Your task to perform on an android device: check out phone information Image 0: 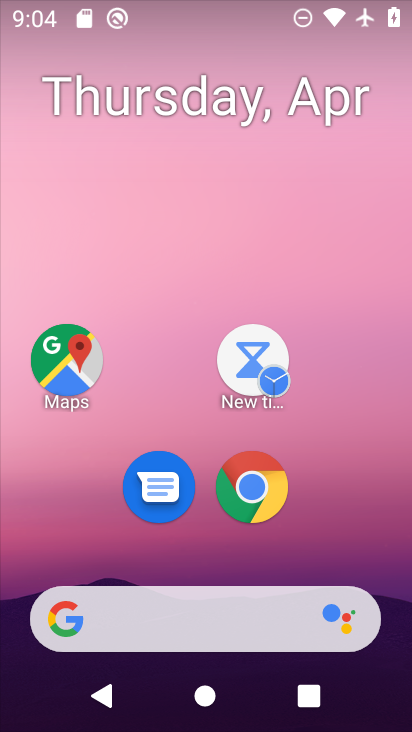
Step 0: drag from (345, 502) to (304, 89)
Your task to perform on an android device: check out phone information Image 1: 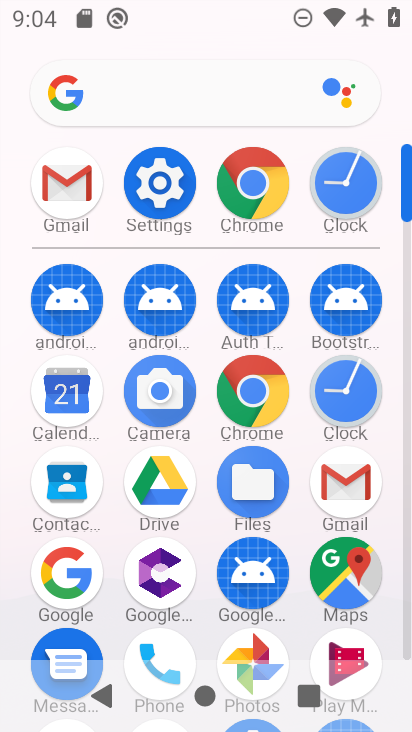
Step 1: drag from (193, 598) to (210, 343)
Your task to perform on an android device: check out phone information Image 2: 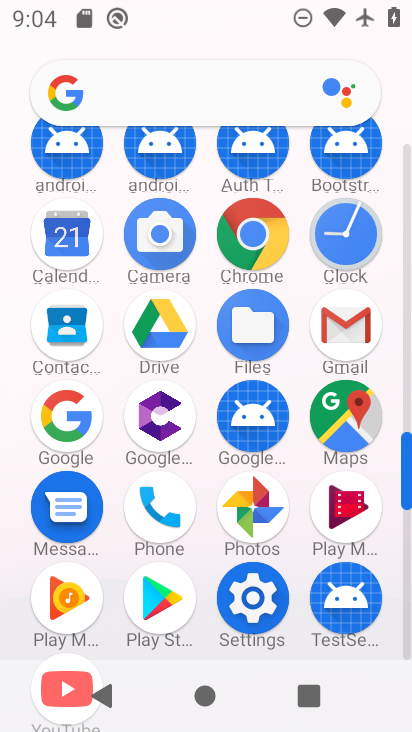
Step 2: click (157, 514)
Your task to perform on an android device: check out phone information Image 3: 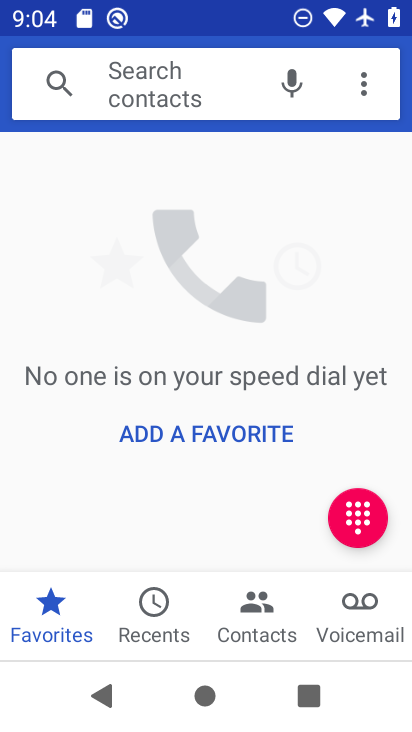
Step 3: click (365, 81)
Your task to perform on an android device: check out phone information Image 4: 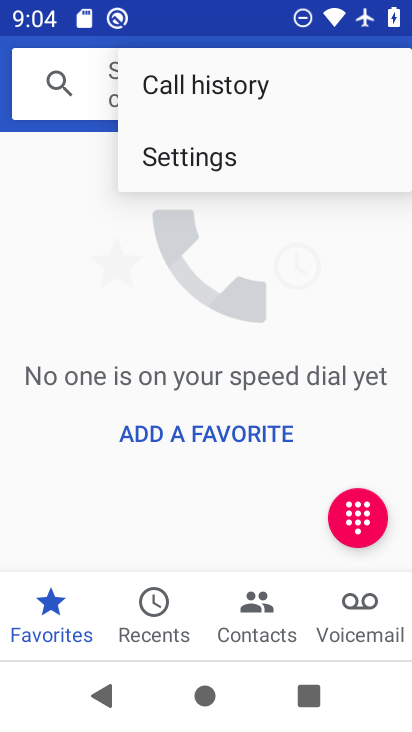
Step 4: click (214, 152)
Your task to perform on an android device: check out phone information Image 5: 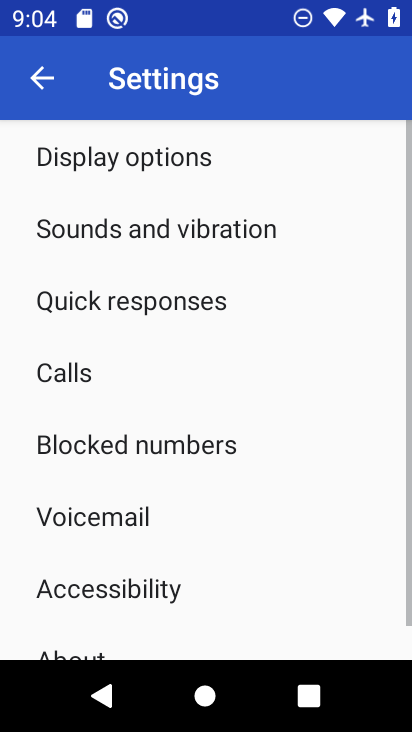
Step 5: click (78, 639)
Your task to perform on an android device: check out phone information Image 6: 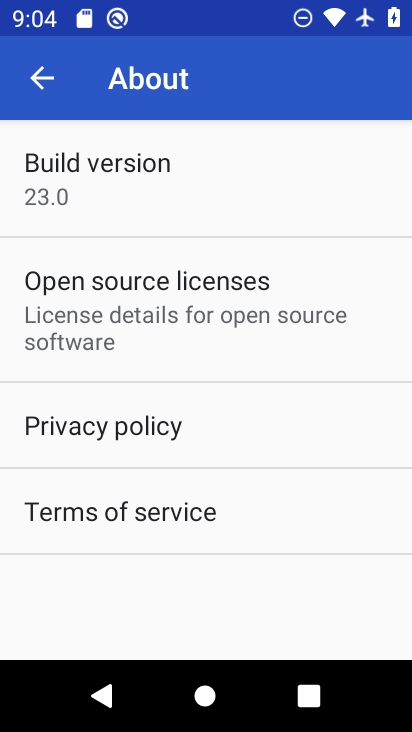
Step 6: task complete